Your task to perform on an android device: Open Google Image 0: 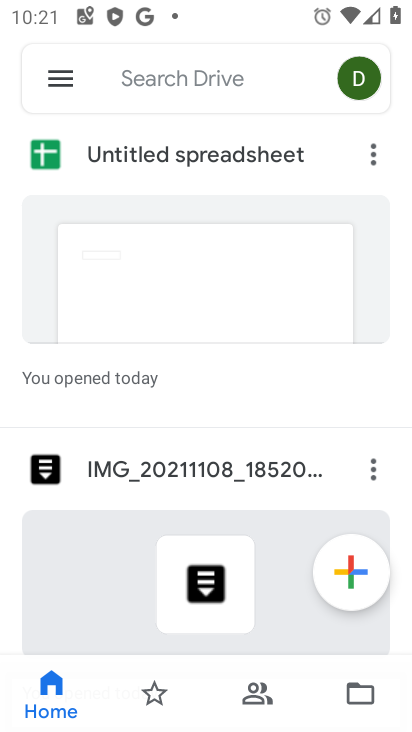
Step 0: press home button
Your task to perform on an android device: Open Google Image 1: 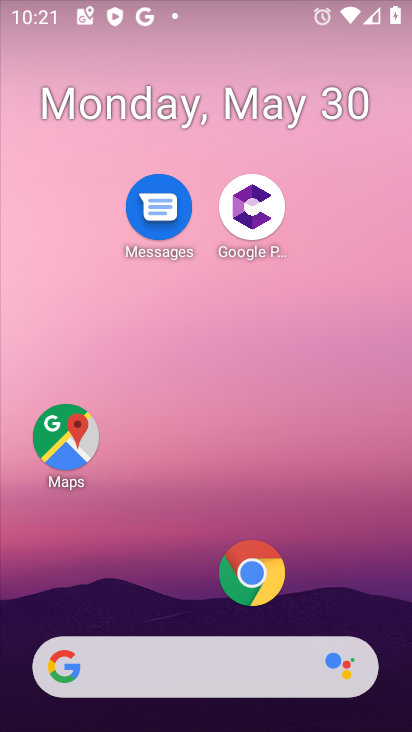
Step 1: drag from (173, 656) to (188, 164)
Your task to perform on an android device: Open Google Image 2: 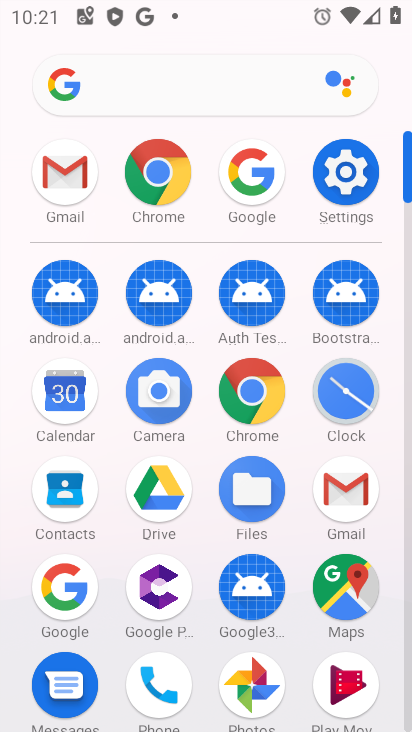
Step 2: click (261, 200)
Your task to perform on an android device: Open Google Image 3: 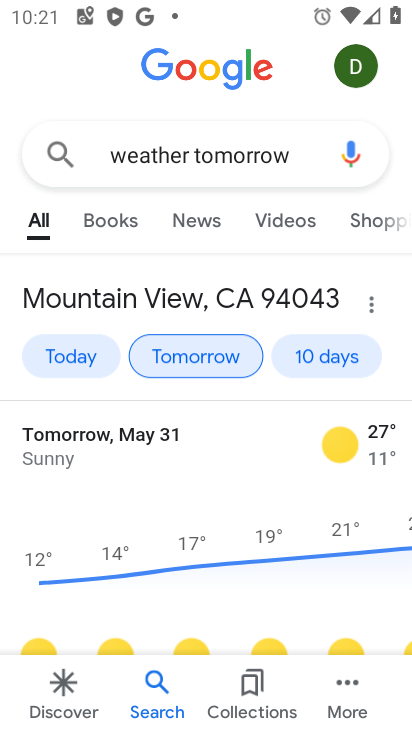
Step 3: task complete